Your task to perform on an android device: turn on javascript in the chrome app Image 0: 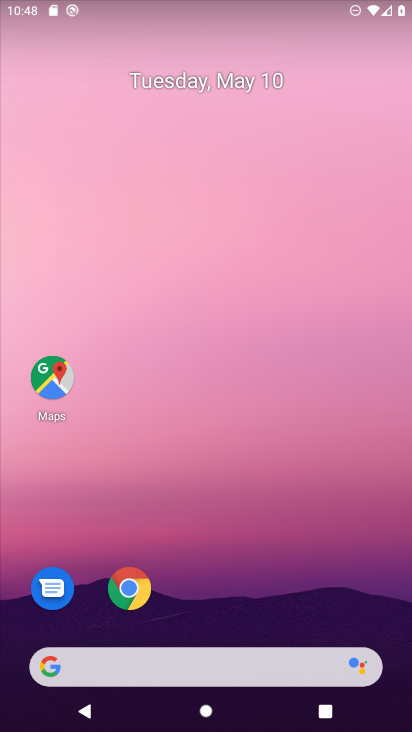
Step 0: click (142, 590)
Your task to perform on an android device: turn on javascript in the chrome app Image 1: 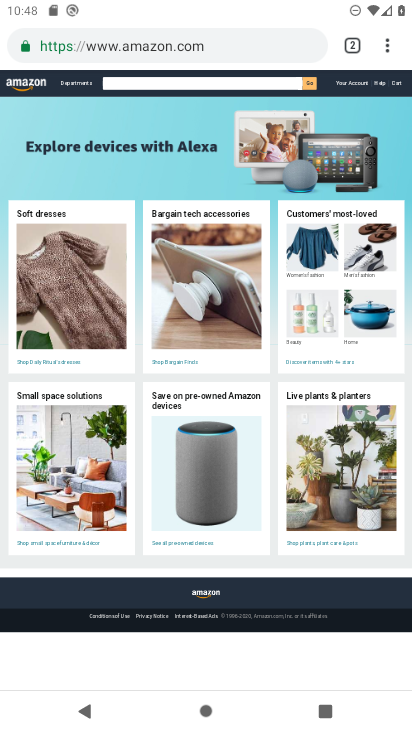
Step 1: drag from (384, 49) to (269, 541)
Your task to perform on an android device: turn on javascript in the chrome app Image 2: 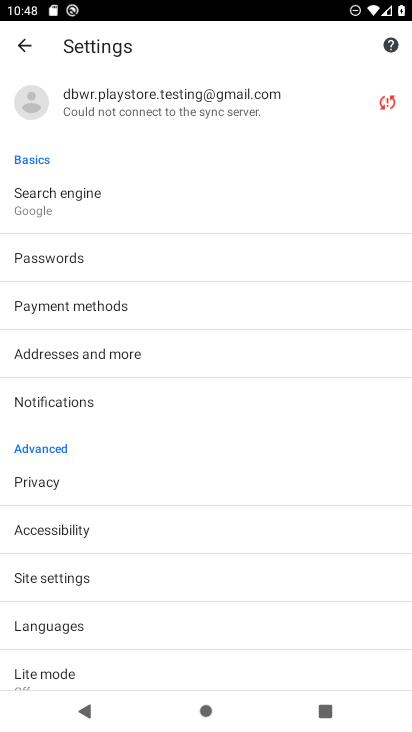
Step 2: click (119, 584)
Your task to perform on an android device: turn on javascript in the chrome app Image 3: 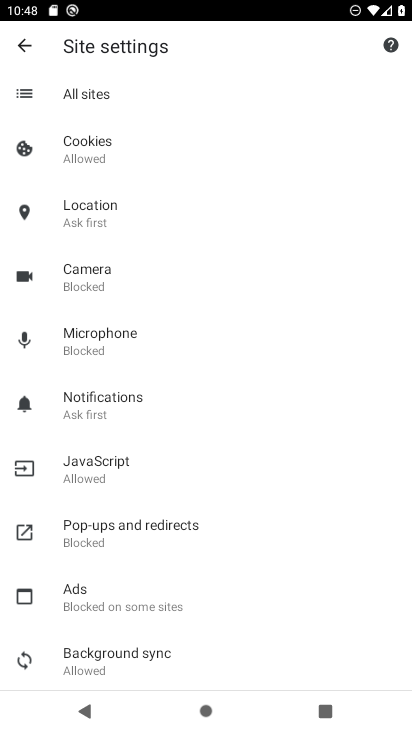
Step 3: click (115, 460)
Your task to perform on an android device: turn on javascript in the chrome app Image 4: 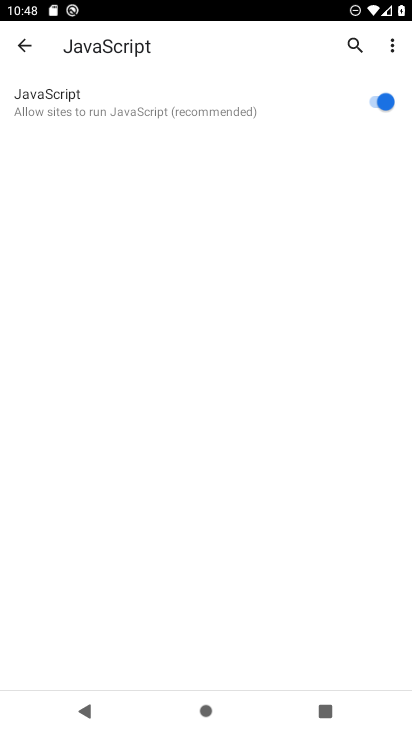
Step 4: task complete